Your task to perform on an android device: install app "Pandora - Music & Podcasts" Image 0: 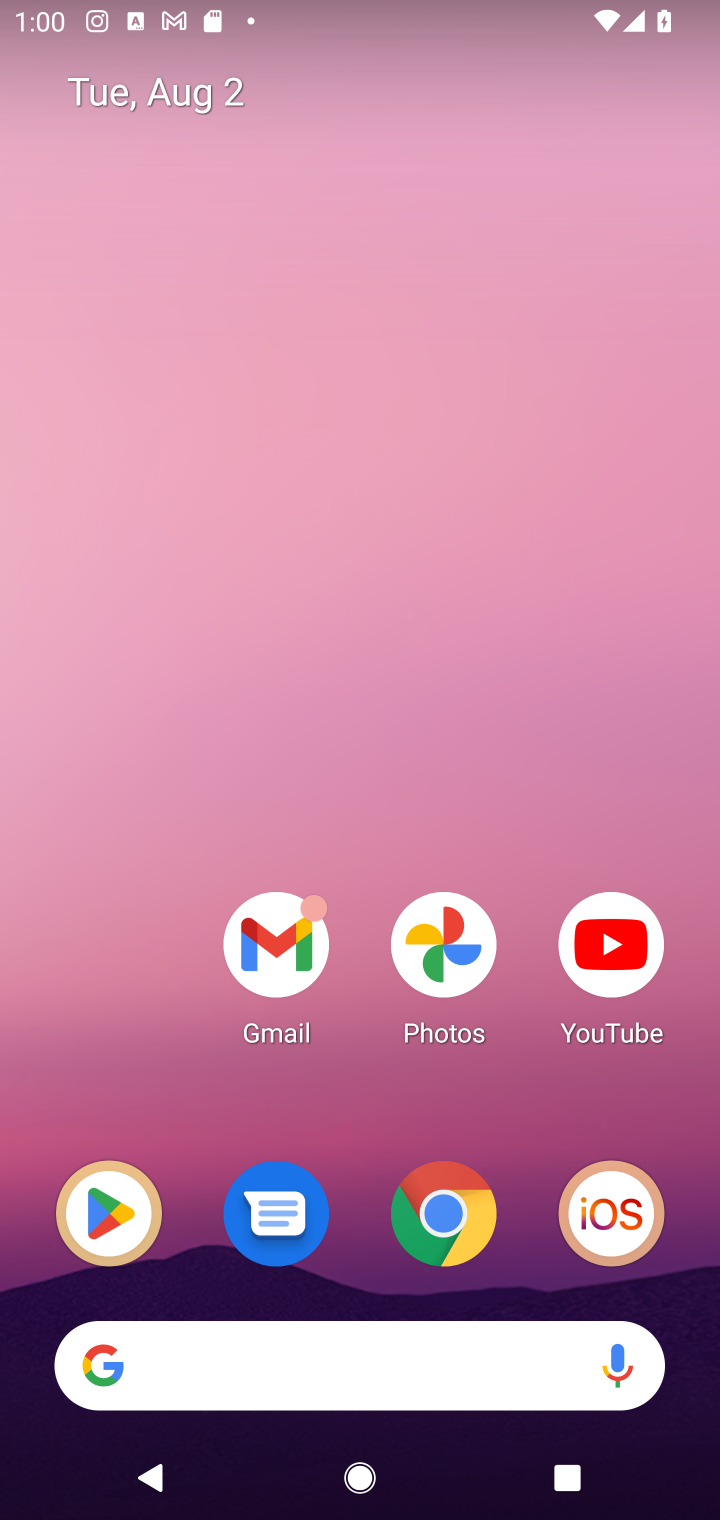
Step 0: click (103, 1218)
Your task to perform on an android device: install app "Pandora - Music & Podcasts" Image 1: 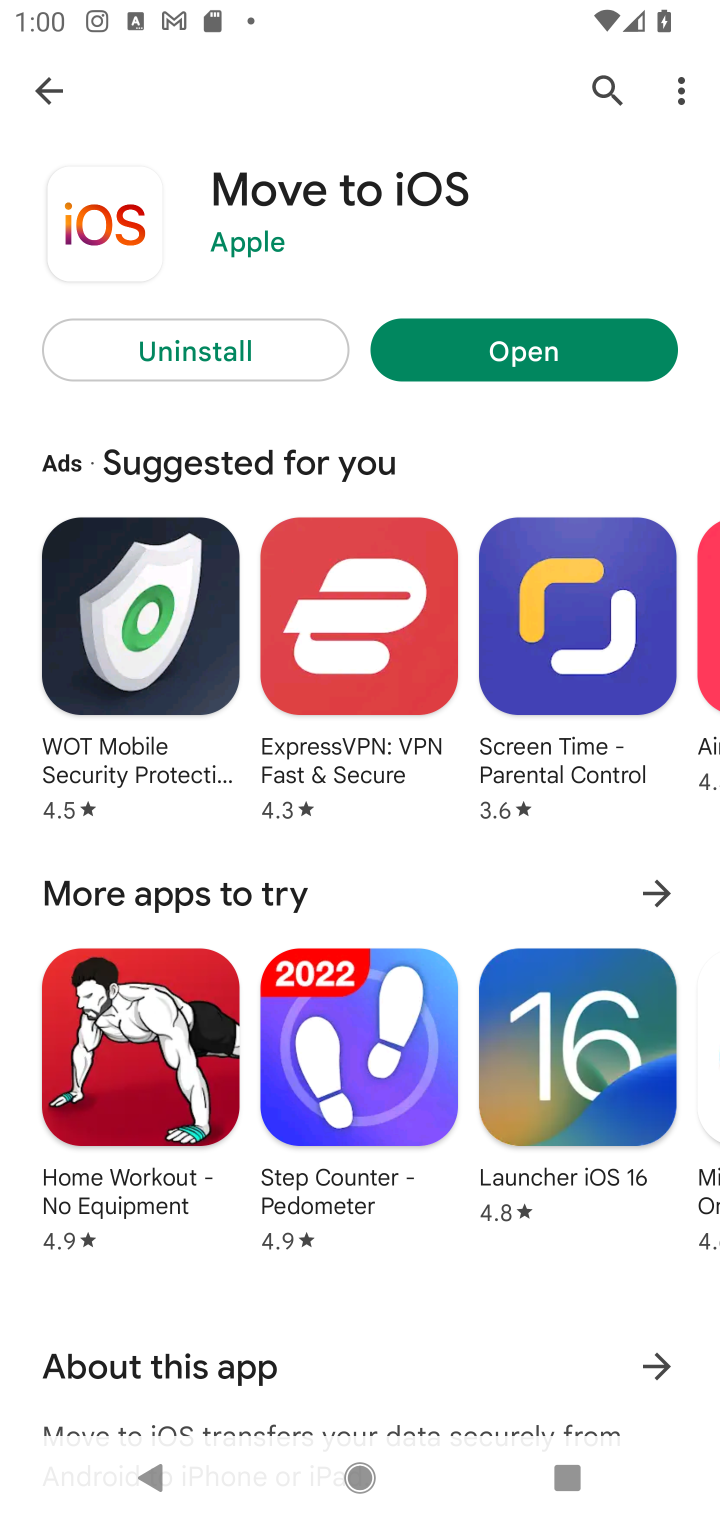
Step 1: click (37, 83)
Your task to perform on an android device: install app "Pandora - Music & Podcasts" Image 2: 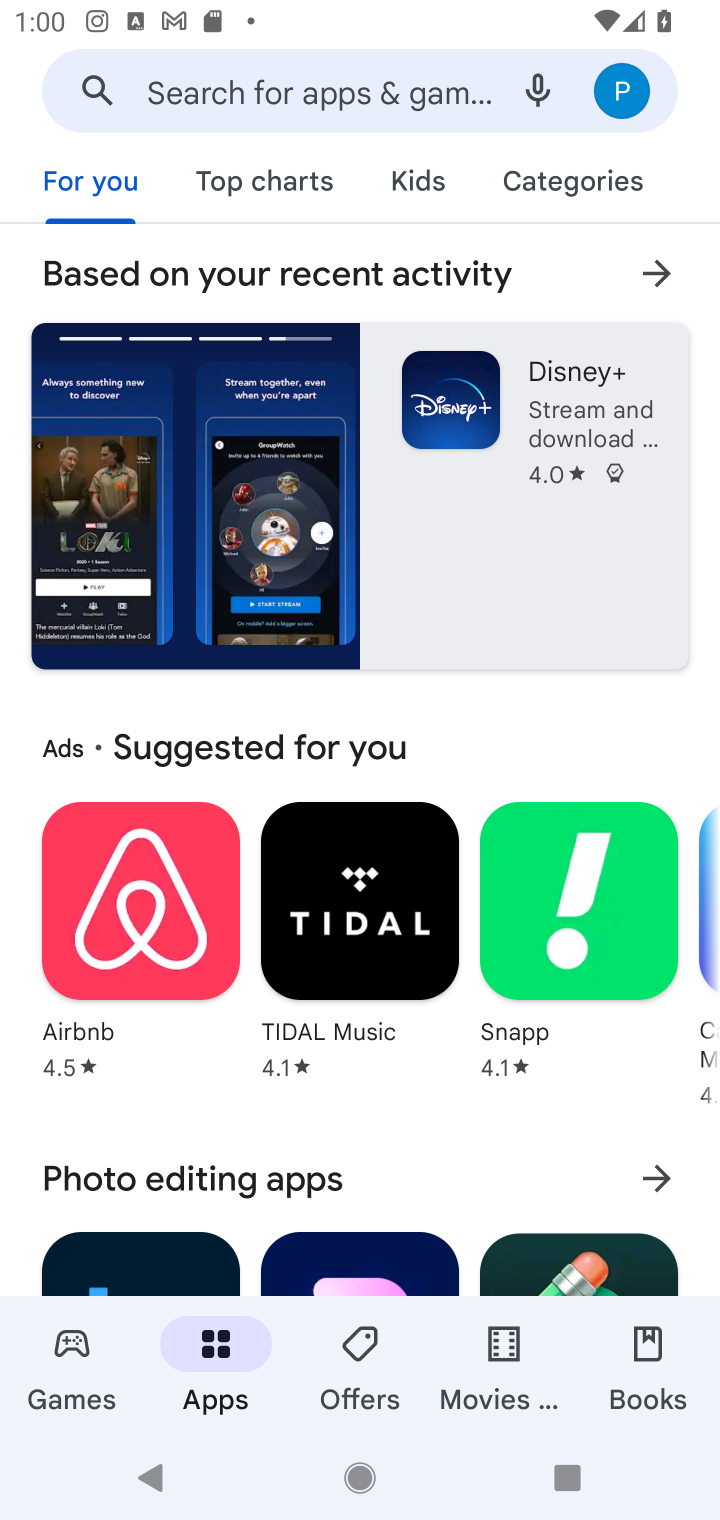
Step 2: click (147, 83)
Your task to perform on an android device: install app "Pandora - Music & Podcasts" Image 3: 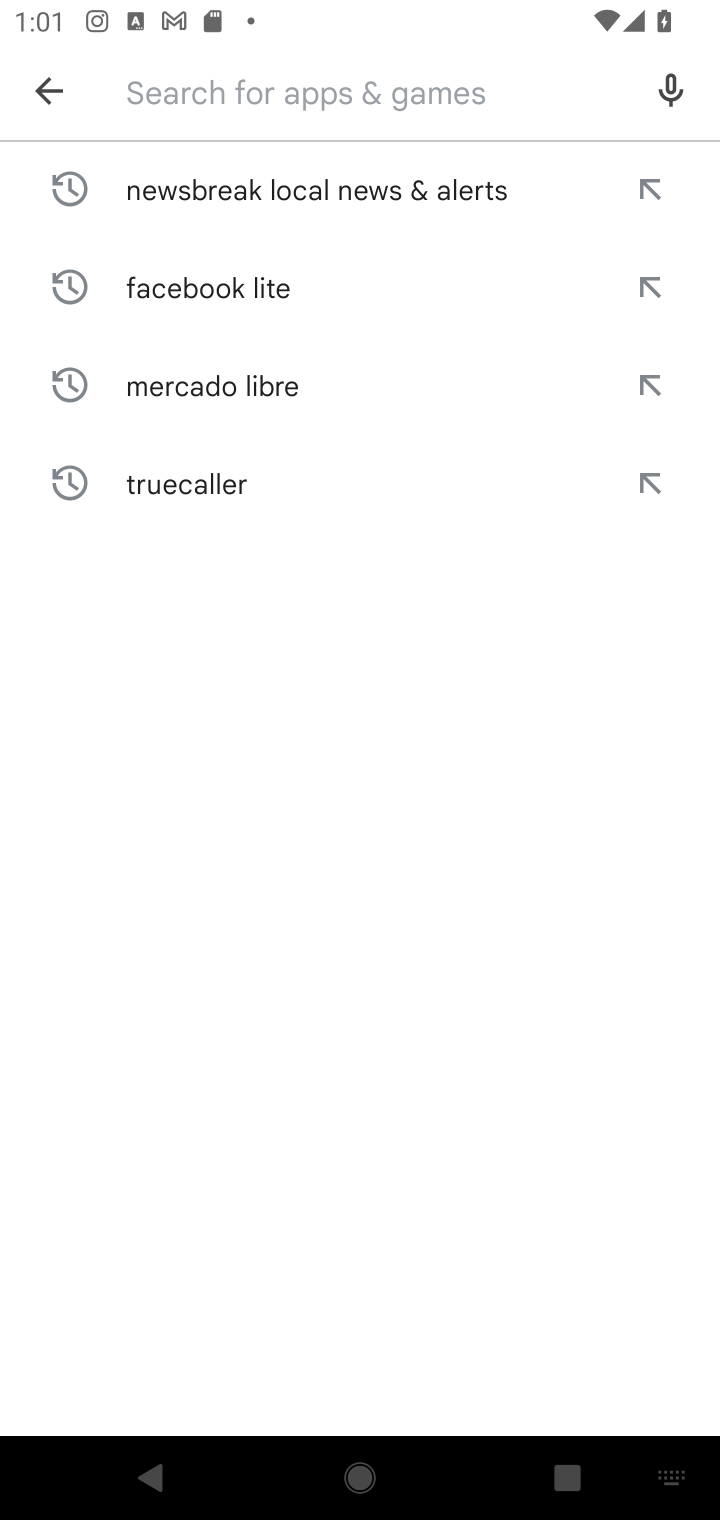
Step 3: type "Pandora - Music & Podcasts"
Your task to perform on an android device: install app "Pandora - Music & Podcasts" Image 4: 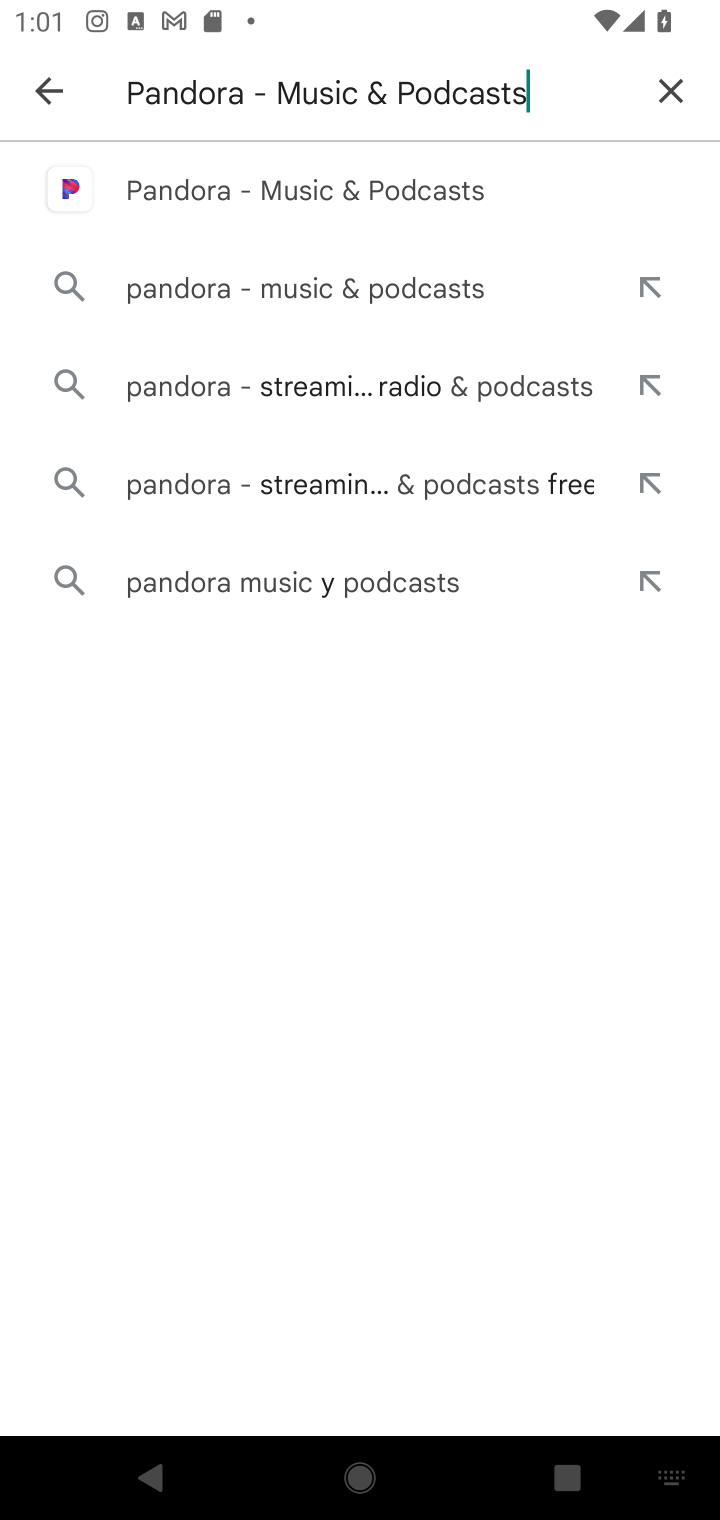
Step 4: click (139, 195)
Your task to perform on an android device: install app "Pandora - Music & Podcasts" Image 5: 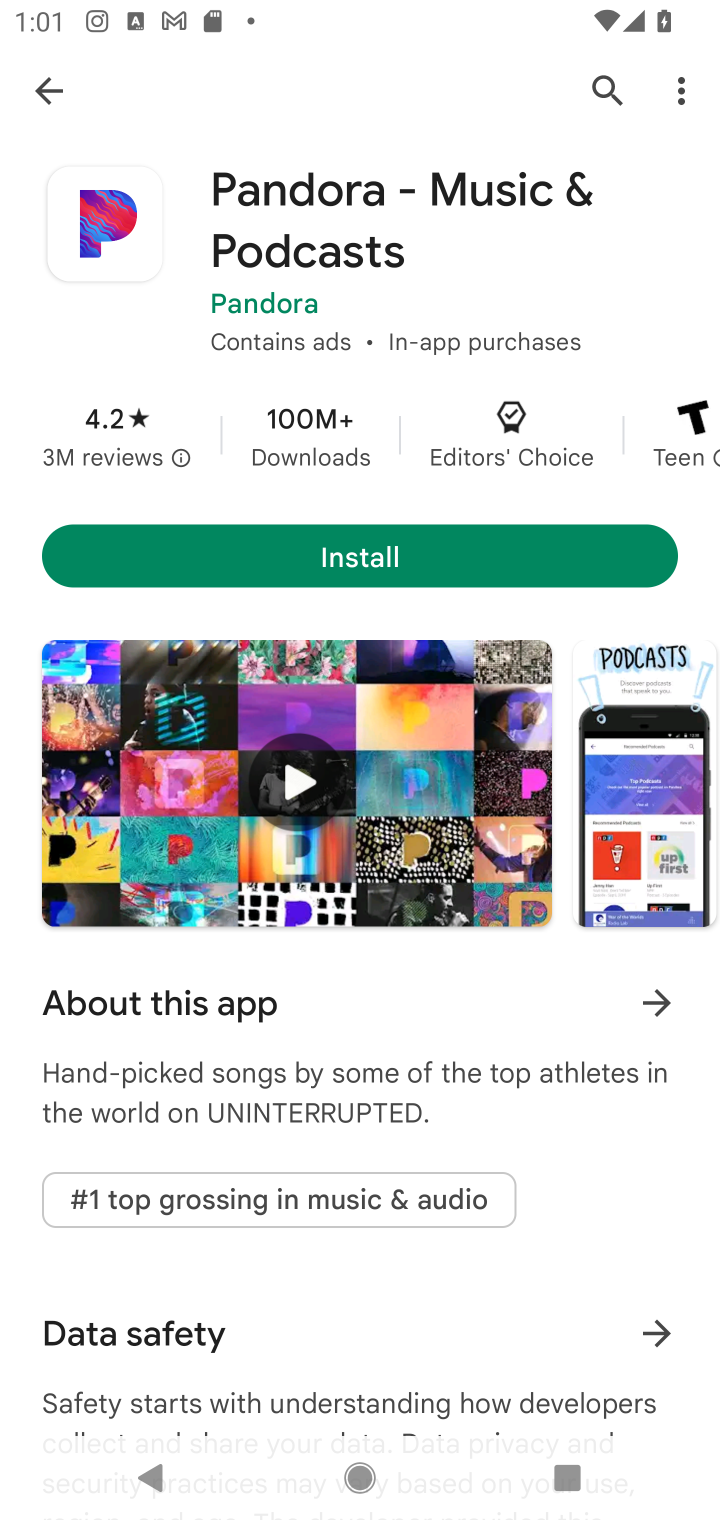
Step 5: click (409, 571)
Your task to perform on an android device: install app "Pandora - Music & Podcasts" Image 6: 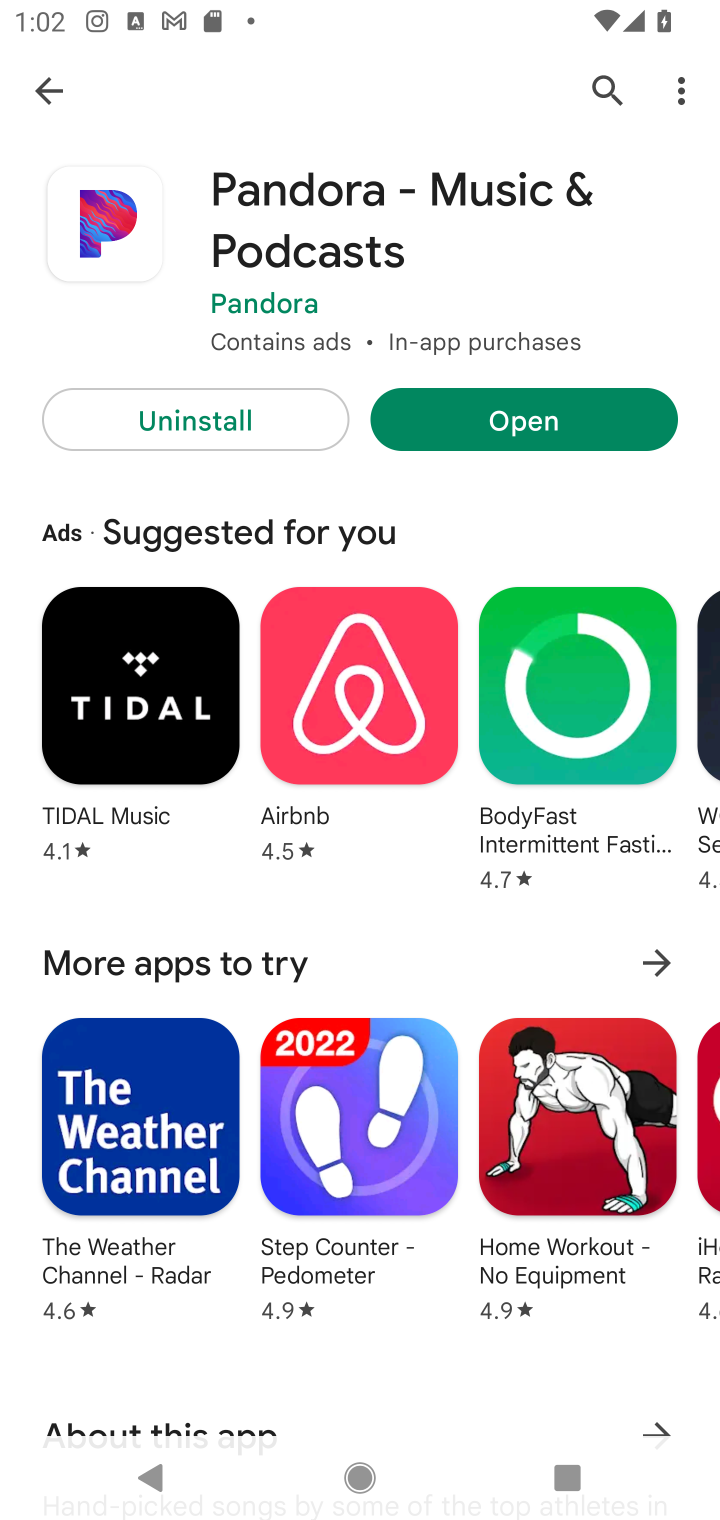
Step 6: click (573, 430)
Your task to perform on an android device: install app "Pandora - Music & Podcasts" Image 7: 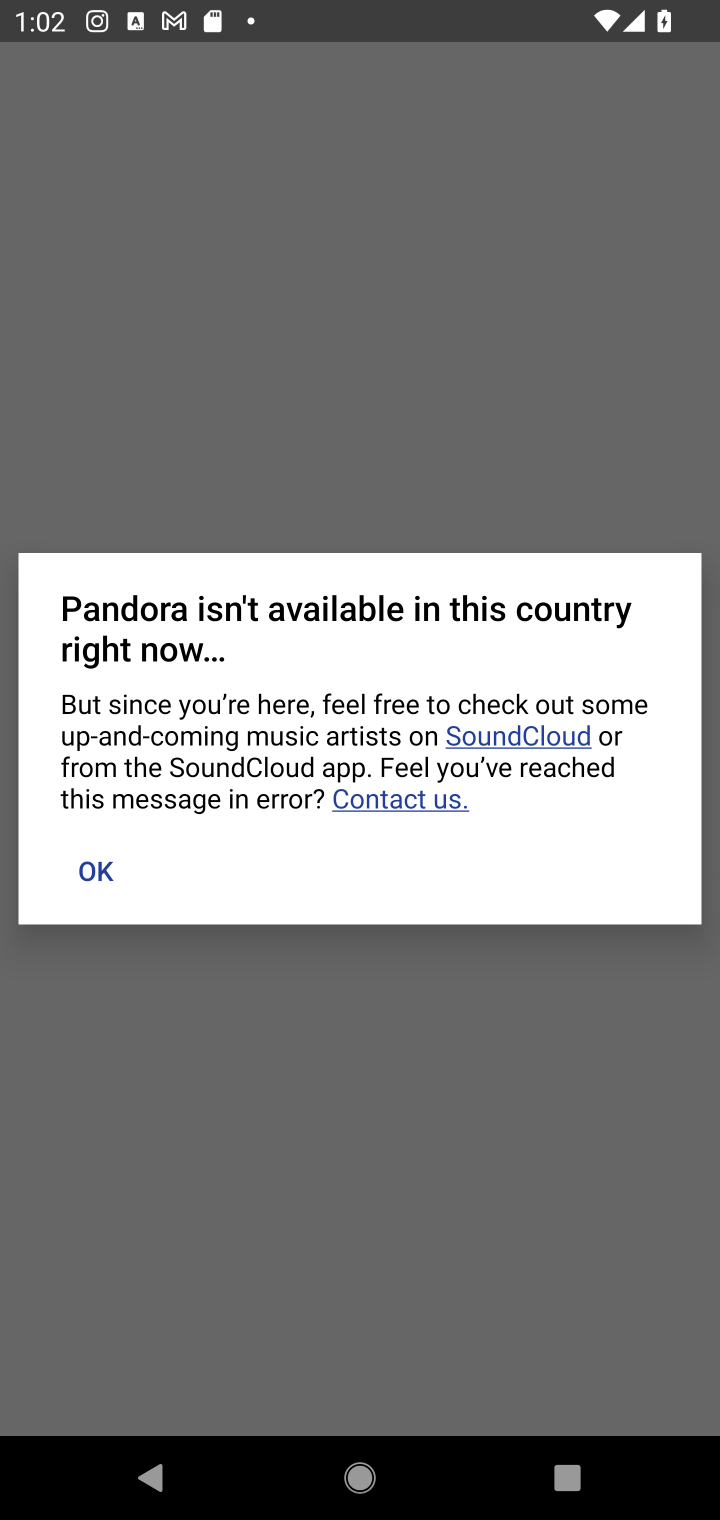
Step 7: task complete